Your task to perform on an android device: Open Wikipedia Image 0: 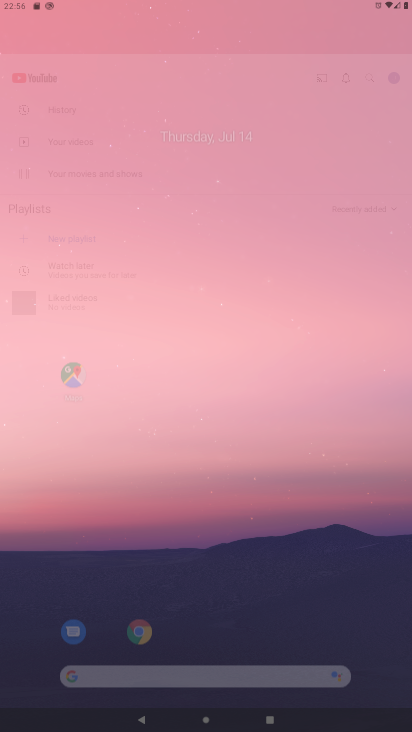
Step 0: drag from (214, 650) to (312, 72)
Your task to perform on an android device: Open Wikipedia Image 1: 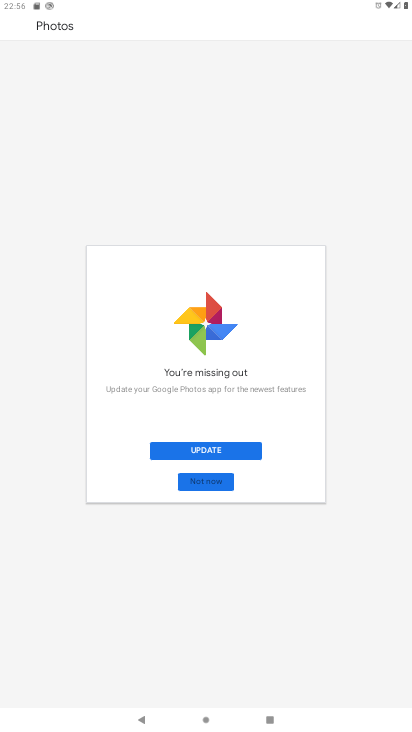
Step 1: press home button
Your task to perform on an android device: Open Wikipedia Image 2: 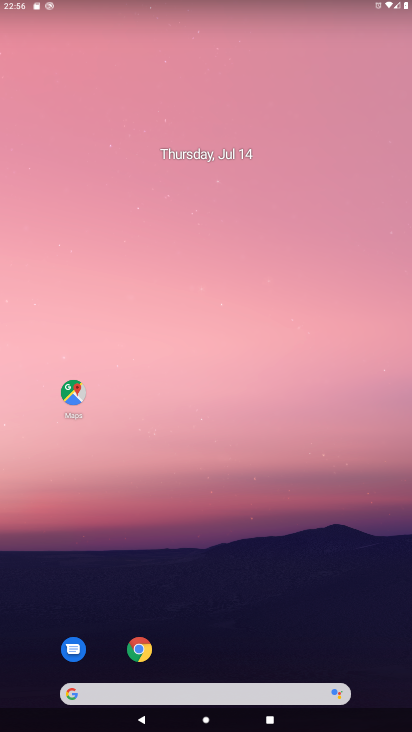
Step 2: click (237, 697)
Your task to perform on an android device: Open Wikipedia Image 3: 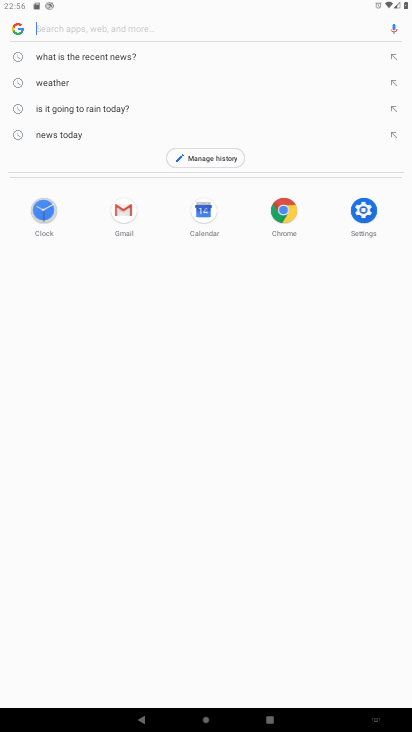
Step 3: type "wikipedia"
Your task to perform on an android device: Open Wikipedia Image 4: 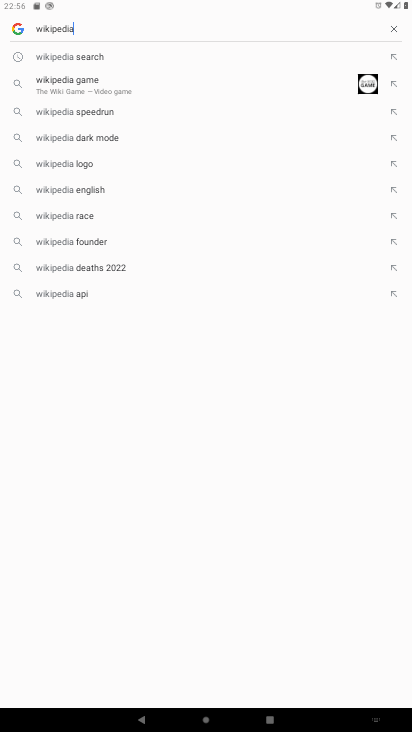
Step 4: press enter
Your task to perform on an android device: Open Wikipedia Image 5: 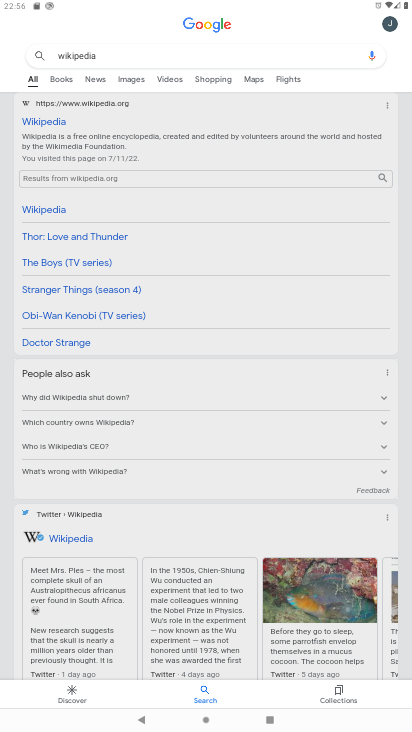
Step 5: click (44, 109)
Your task to perform on an android device: Open Wikipedia Image 6: 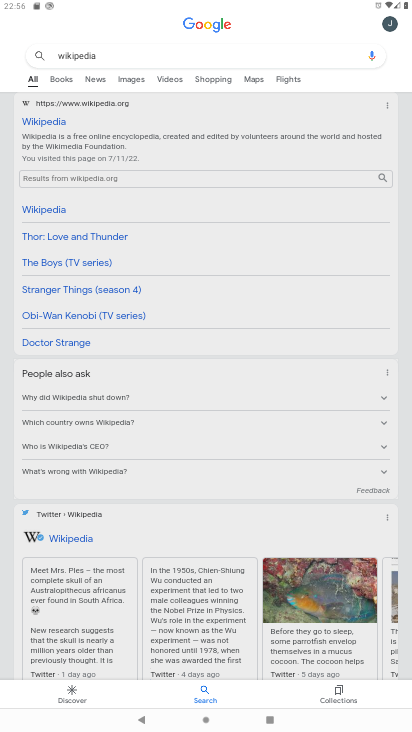
Step 6: click (59, 100)
Your task to perform on an android device: Open Wikipedia Image 7: 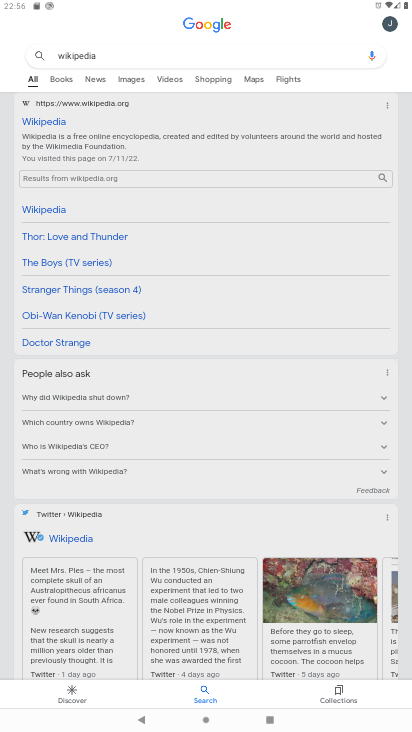
Step 7: click (46, 115)
Your task to perform on an android device: Open Wikipedia Image 8: 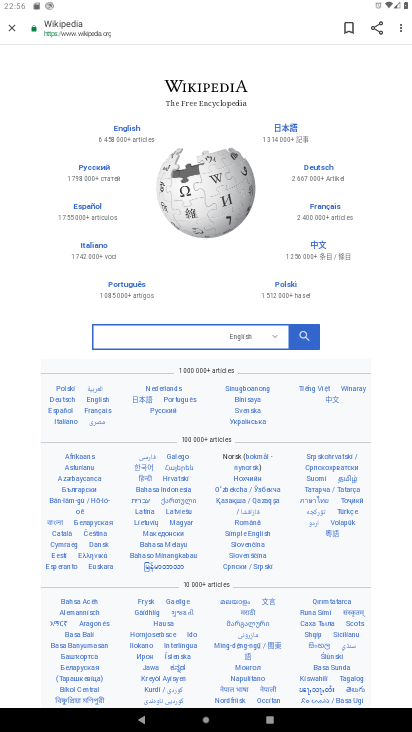
Step 8: task complete